Your task to perform on an android device: Open internet settings Image 0: 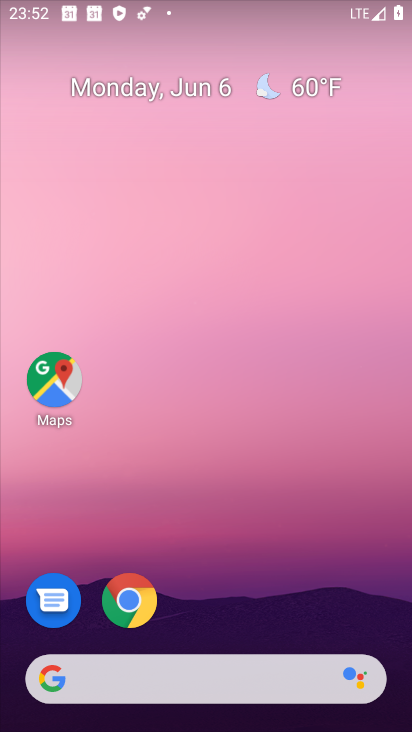
Step 0: drag from (224, 680) to (223, 69)
Your task to perform on an android device: Open internet settings Image 1: 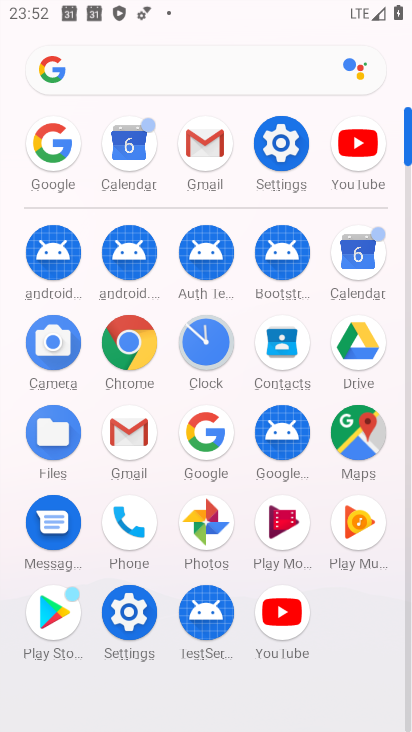
Step 1: click (288, 150)
Your task to perform on an android device: Open internet settings Image 2: 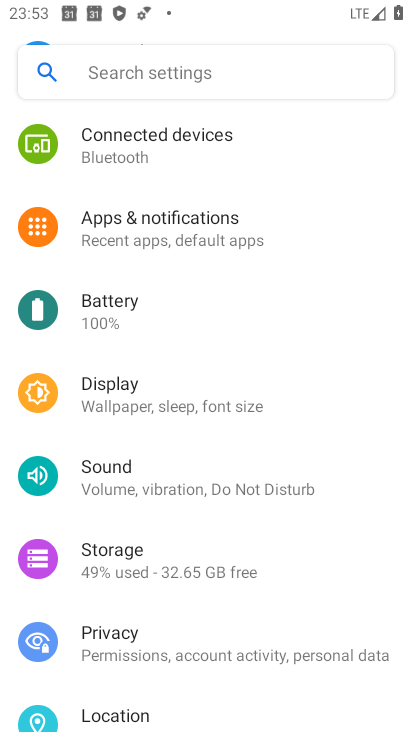
Step 2: drag from (208, 175) to (186, 532)
Your task to perform on an android device: Open internet settings Image 3: 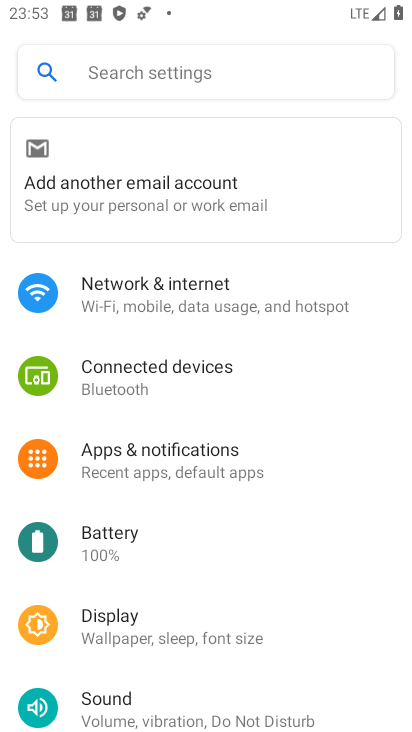
Step 3: click (135, 296)
Your task to perform on an android device: Open internet settings Image 4: 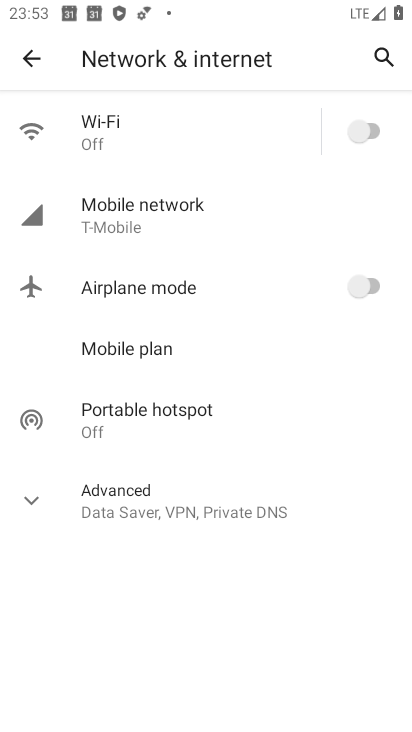
Step 4: click (139, 209)
Your task to perform on an android device: Open internet settings Image 5: 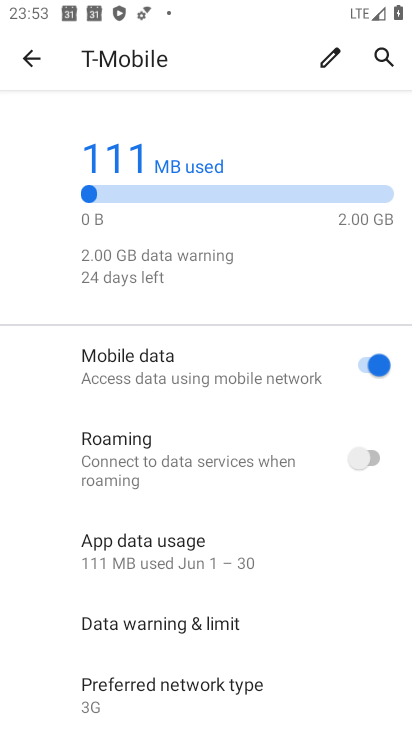
Step 5: task complete